Your task to perform on an android device: turn smart compose on in the gmail app Image 0: 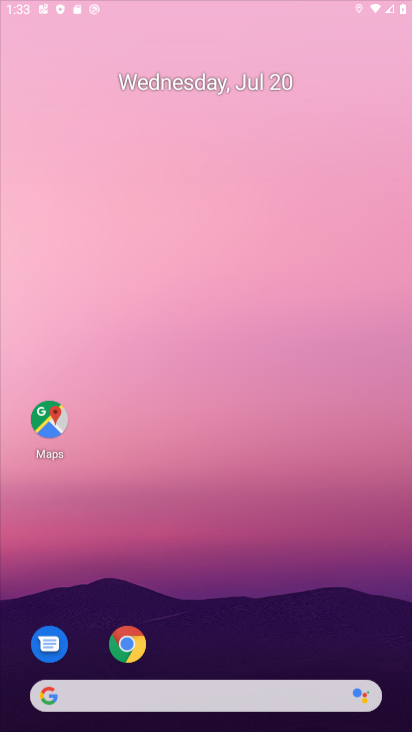
Step 0: press home button
Your task to perform on an android device: turn smart compose on in the gmail app Image 1: 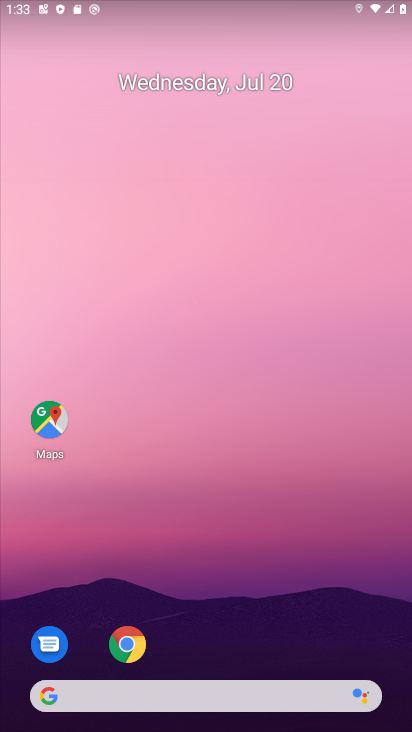
Step 1: drag from (246, 649) to (230, 131)
Your task to perform on an android device: turn smart compose on in the gmail app Image 2: 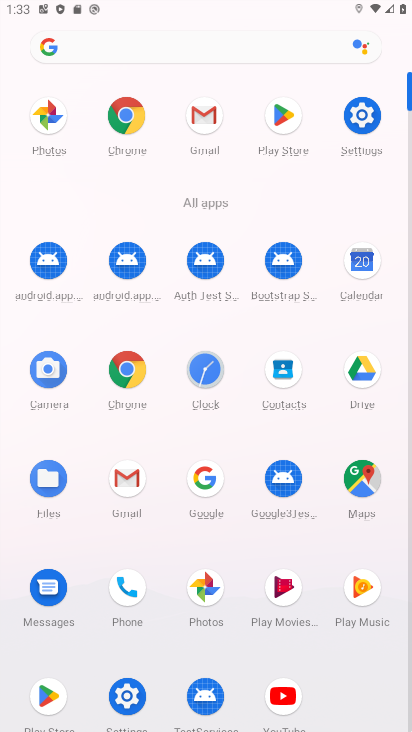
Step 2: click (202, 118)
Your task to perform on an android device: turn smart compose on in the gmail app Image 3: 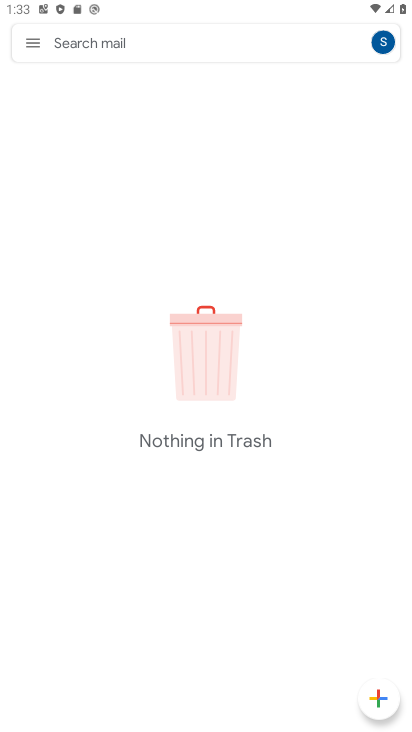
Step 3: click (38, 48)
Your task to perform on an android device: turn smart compose on in the gmail app Image 4: 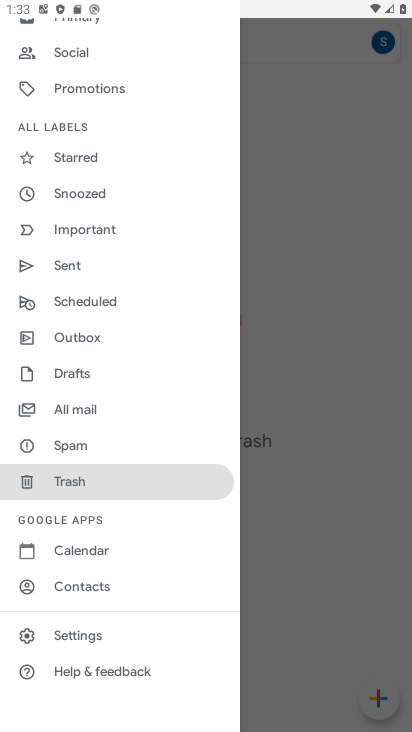
Step 4: click (84, 636)
Your task to perform on an android device: turn smart compose on in the gmail app Image 5: 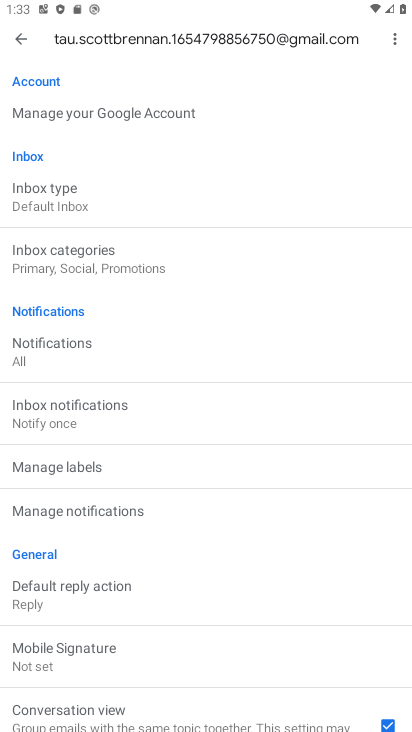
Step 5: task complete